Your task to perform on an android device: toggle pop-ups in chrome Image 0: 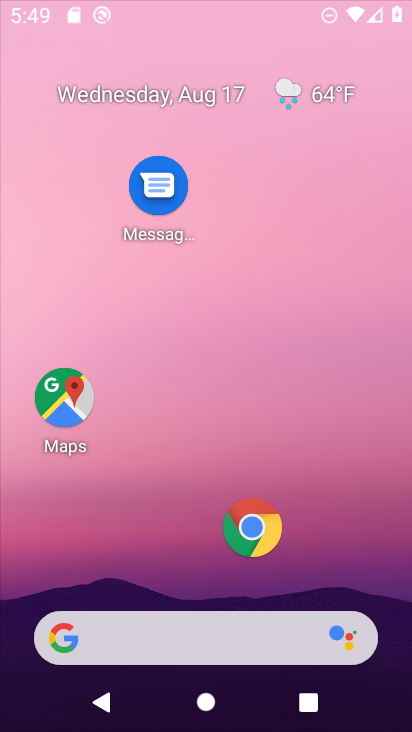
Step 0: drag from (146, 551) to (158, 348)
Your task to perform on an android device: toggle pop-ups in chrome Image 1: 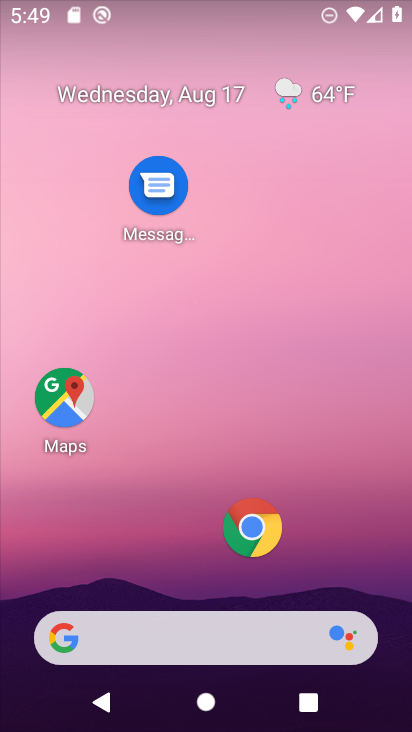
Step 1: click (240, 534)
Your task to perform on an android device: toggle pop-ups in chrome Image 2: 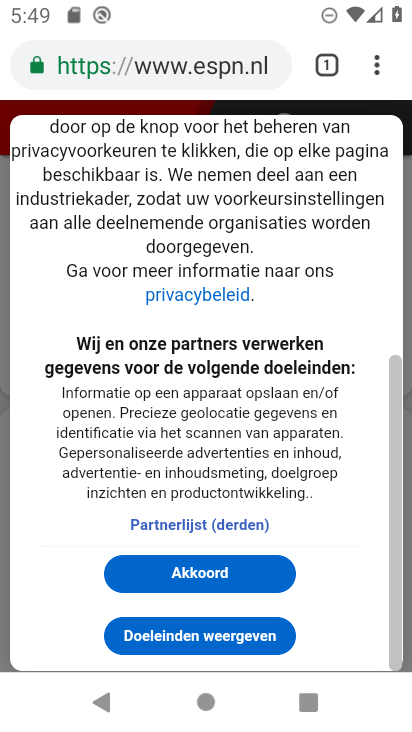
Step 2: click (378, 68)
Your task to perform on an android device: toggle pop-ups in chrome Image 3: 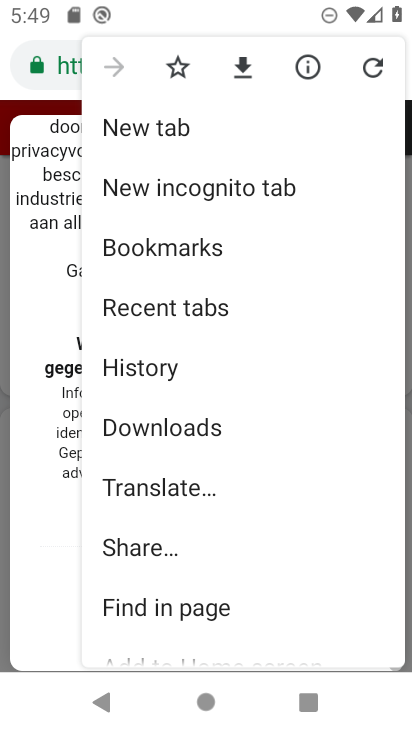
Step 3: drag from (164, 608) to (192, 293)
Your task to perform on an android device: toggle pop-ups in chrome Image 4: 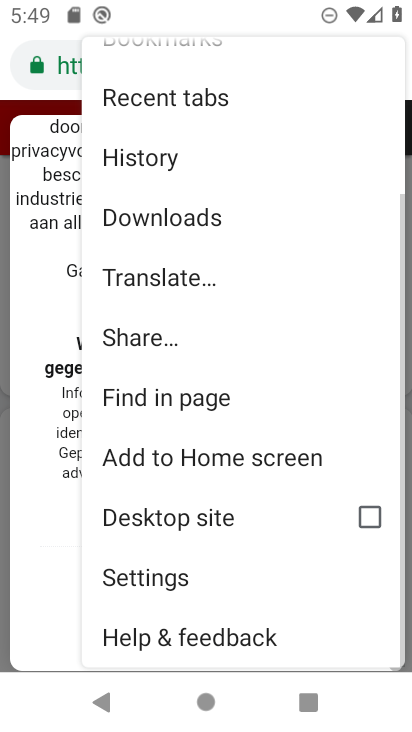
Step 4: click (144, 568)
Your task to perform on an android device: toggle pop-ups in chrome Image 5: 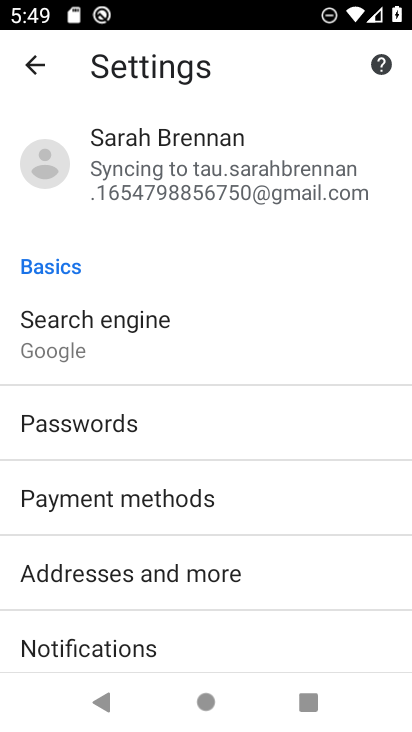
Step 5: drag from (150, 656) to (156, 235)
Your task to perform on an android device: toggle pop-ups in chrome Image 6: 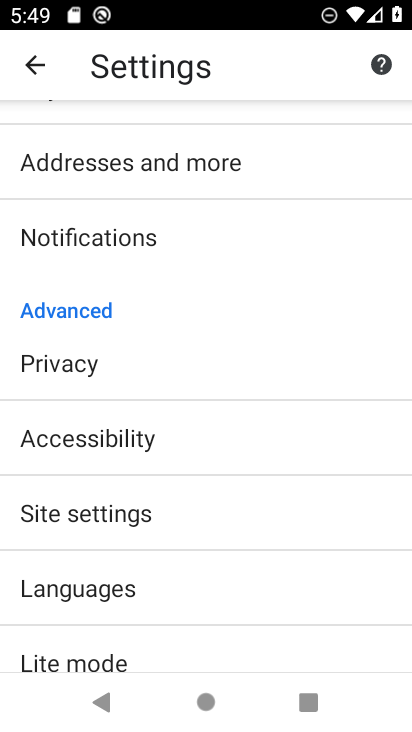
Step 6: click (95, 521)
Your task to perform on an android device: toggle pop-ups in chrome Image 7: 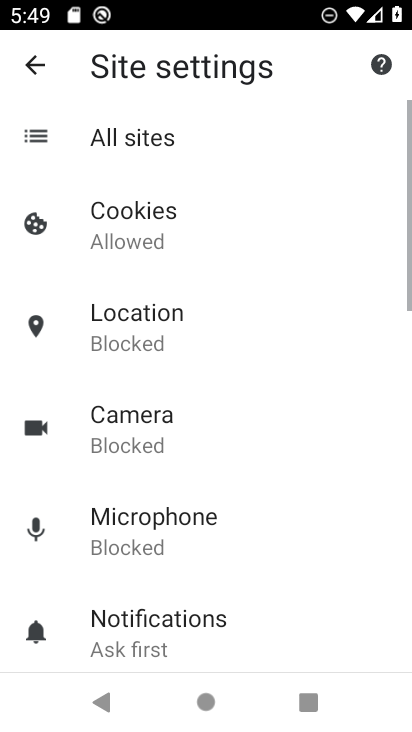
Step 7: drag from (171, 508) to (171, 249)
Your task to perform on an android device: toggle pop-ups in chrome Image 8: 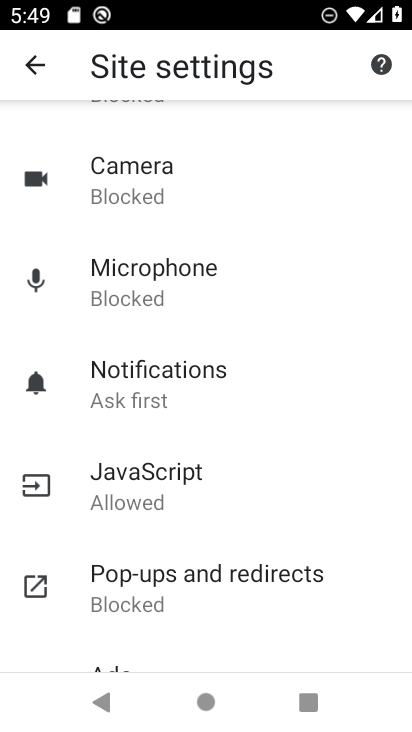
Step 8: click (153, 597)
Your task to perform on an android device: toggle pop-ups in chrome Image 9: 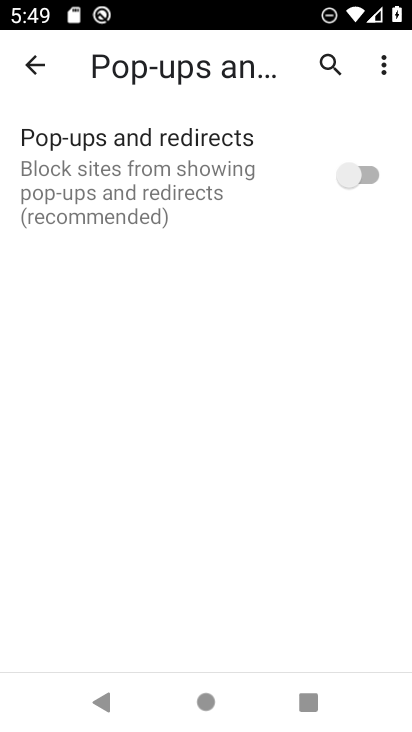
Step 9: click (350, 172)
Your task to perform on an android device: toggle pop-ups in chrome Image 10: 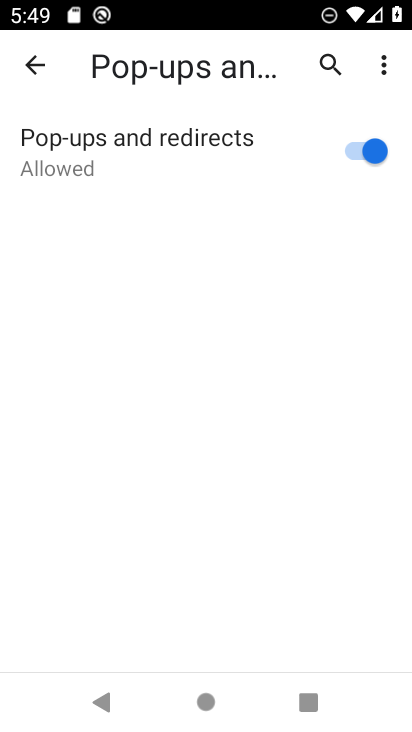
Step 10: task complete